Your task to perform on an android device: Open eBay Image 0: 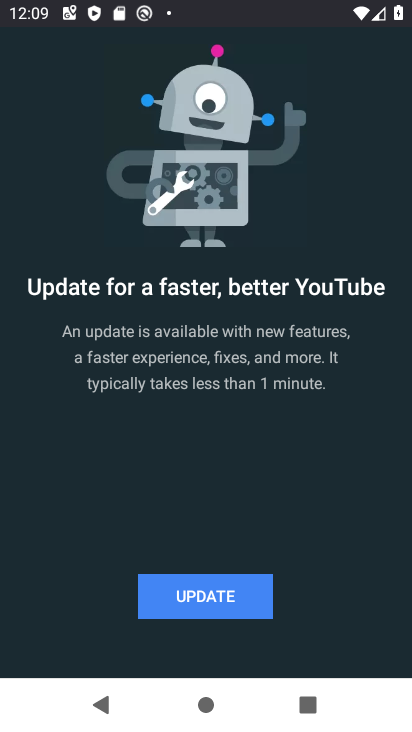
Step 0: press home button
Your task to perform on an android device: Open eBay Image 1: 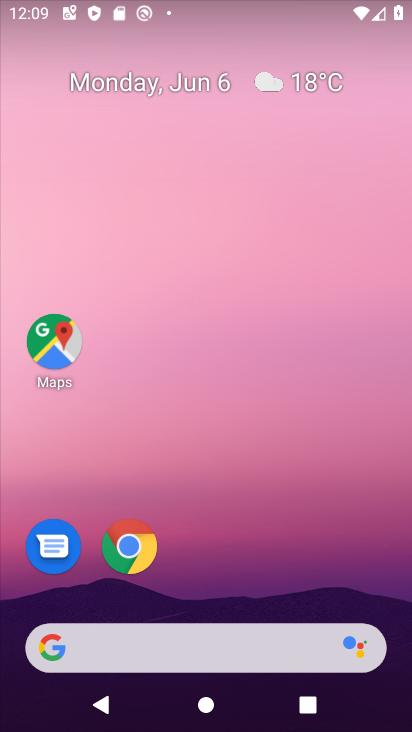
Step 1: click (229, 650)
Your task to perform on an android device: Open eBay Image 2: 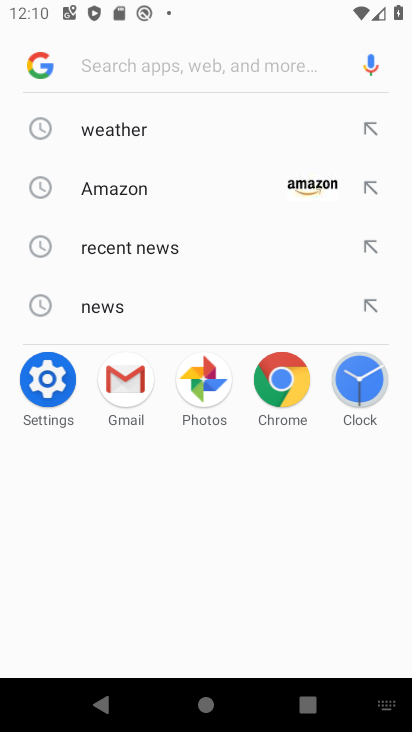
Step 2: type "eBay"
Your task to perform on an android device: Open eBay Image 3: 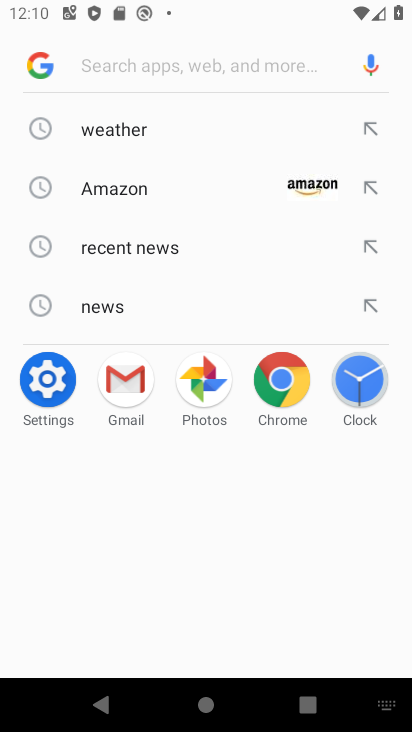
Step 3: click (170, 60)
Your task to perform on an android device: Open eBay Image 4: 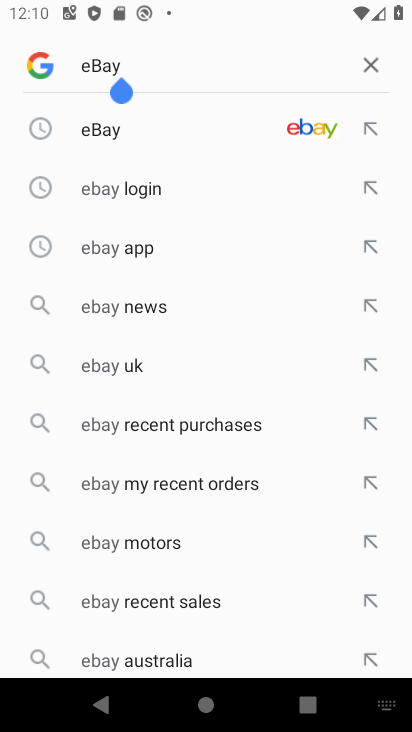
Step 4: click (193, 132)
Your task to perform on an android device: Open eBay Image 5: 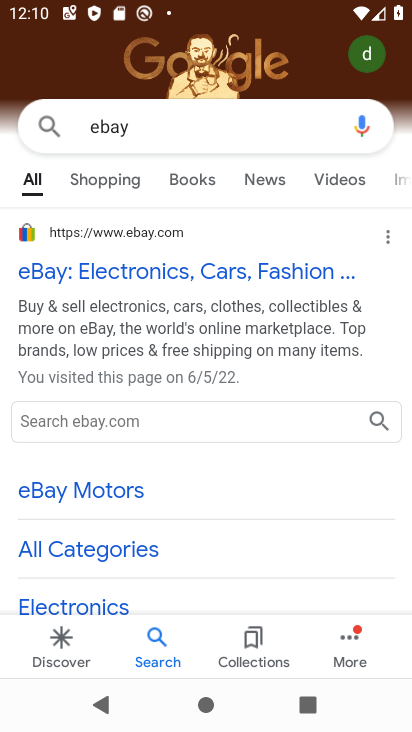
Step 5: click (112, 265)
Your task to perform on an android device: Open eBay Image 6: 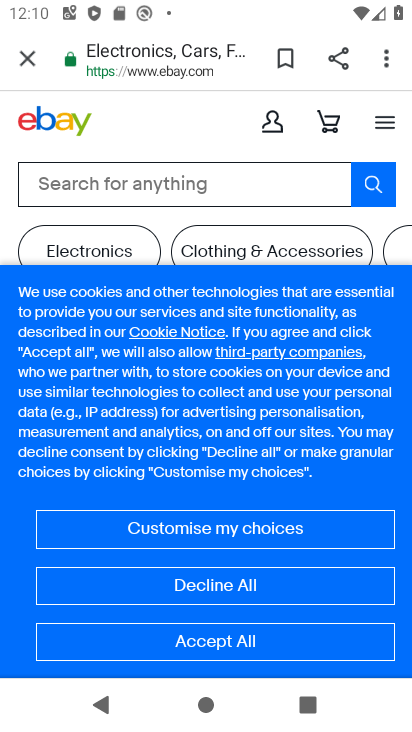
Step 6: task complete